Your task to perform on an android device: change the clock style Image 0: 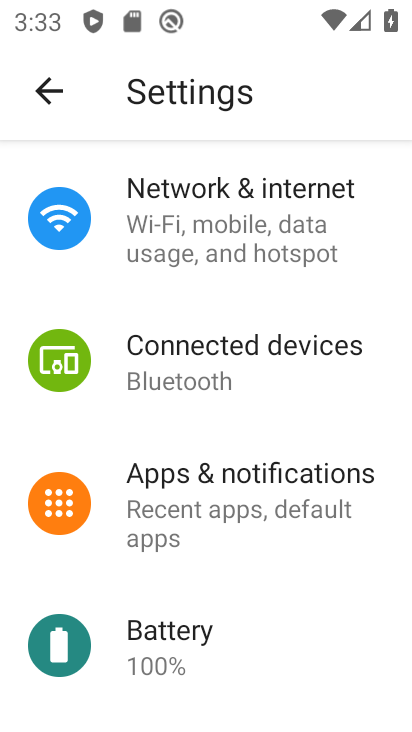
Step 0: press home button
Your task to perform on an android device: change the clock style Image 1: 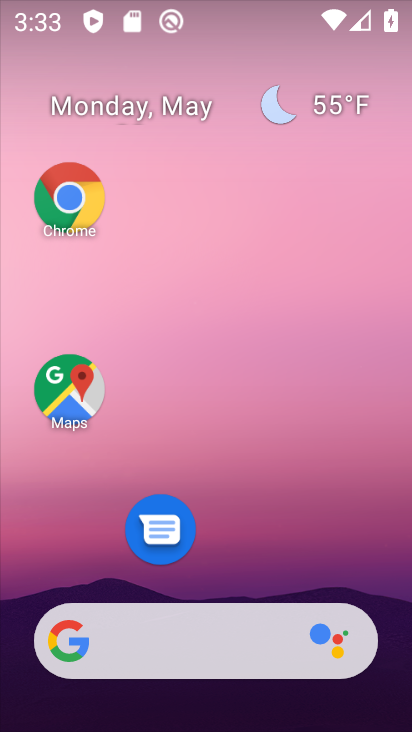
Step 1: drag from (162, 602) to (240, 25)
Your task to perform on an android device: change the clock style Image 2: 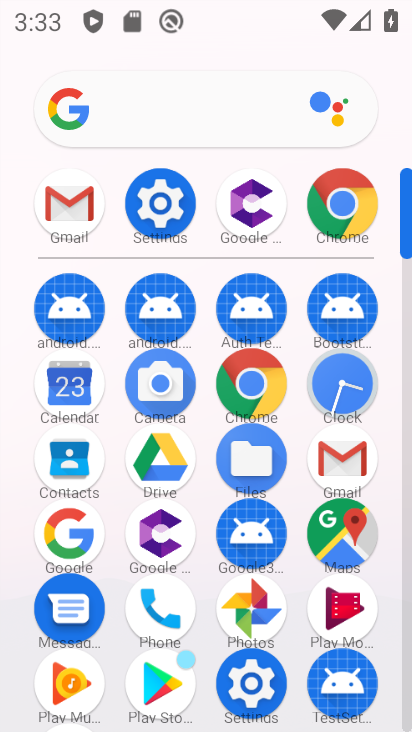
Step 2: click (339, 388)
Your task to perform on an android device: change the clock style Image 3: 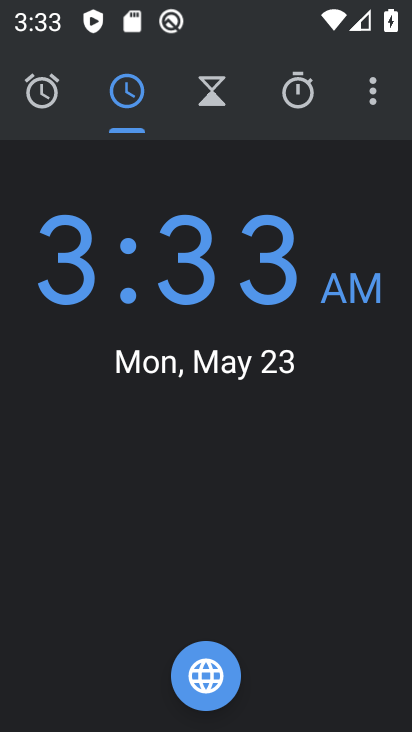
Step 3: click (381, 94)
Your task to perform on an android device: change the clock style Image 4: 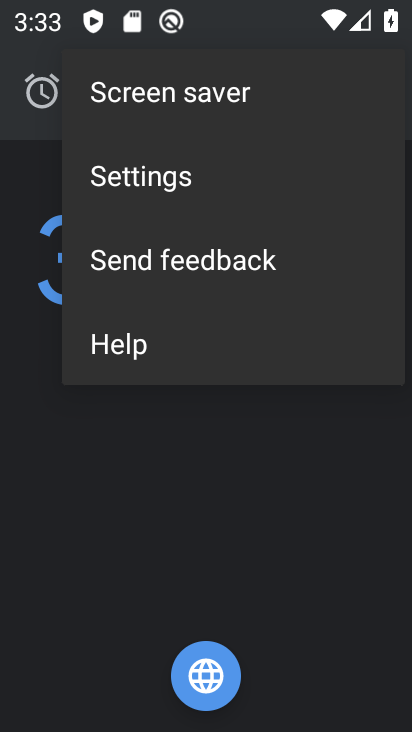
Step 4: click (218, 189)
Your task to perform on an android device: change the clock style Image 5: 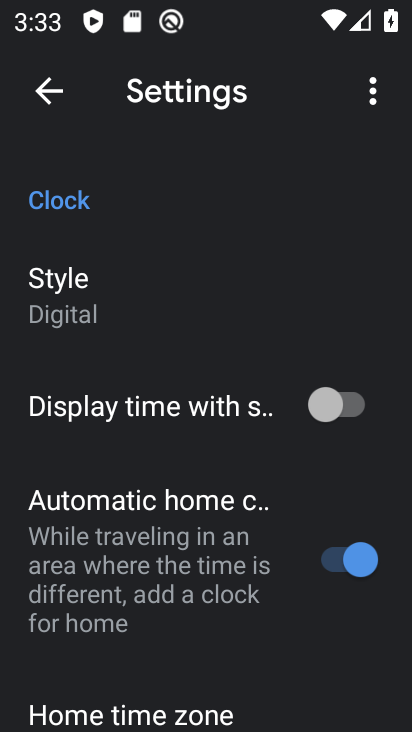
Step 5: click (132, 289)
Your task to perform on an android device: change the clock style Image 6: 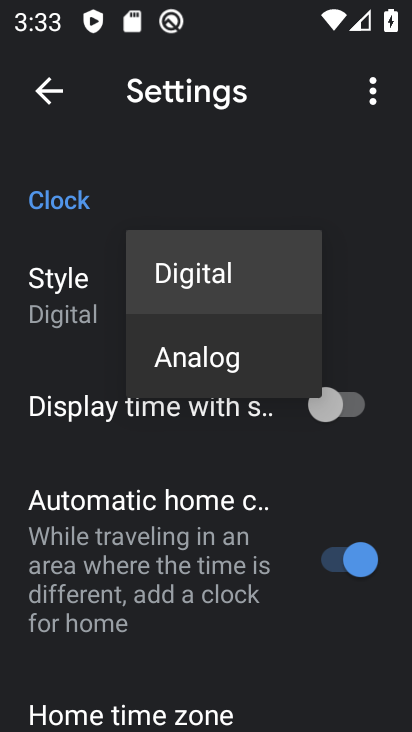
Step 6: click (239, 360)
Your task to perform on an android device: change the clock style Image 7: 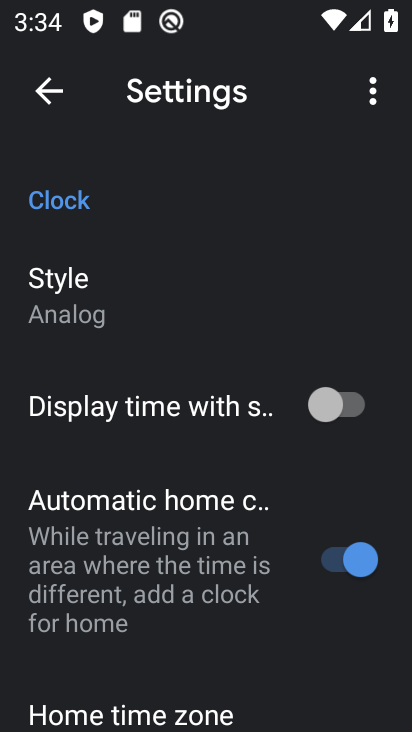
Step 7: task complete